Your task to perform on an android device: clear all cookies in the chrome app Image 0: 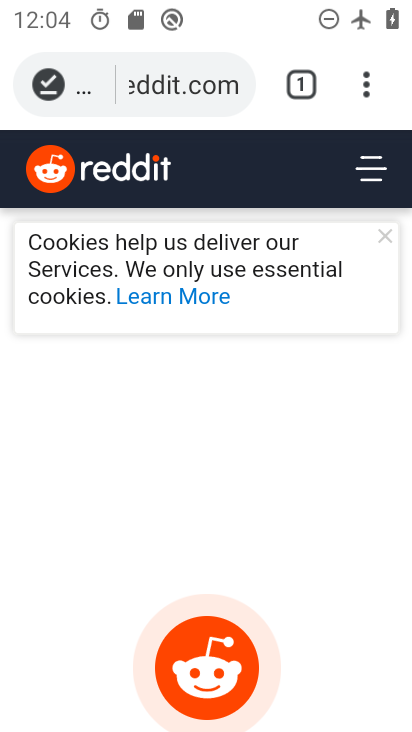
Step 0: drag from (204, 596) to (201, 308)
Your task to perform on an android device: clear all cookies in the chrome app Image 1: 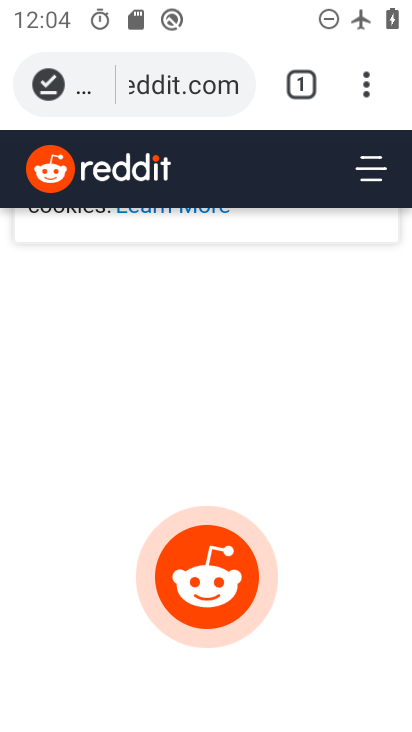
Step 1: press home button
Your task to perform on an android device: clear all cookies in the chrome app Image 2: 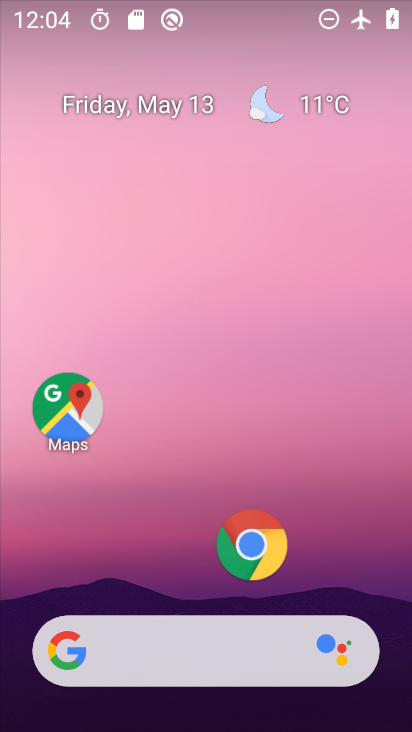
Step 2: click (245, 539)
Your task to perform on an android device: clear all cookies in the chrome app Image 3: 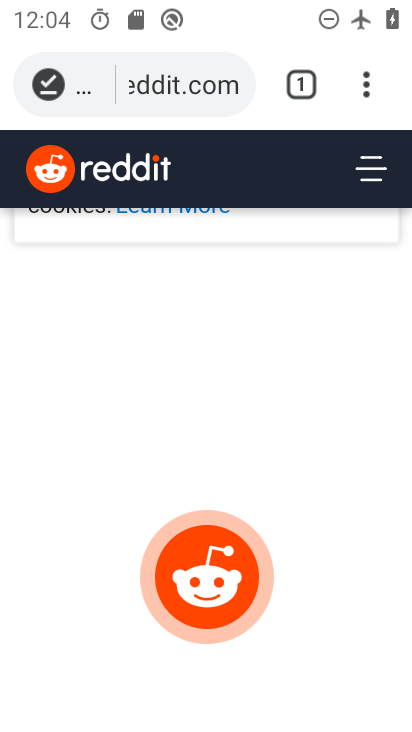
Step 3: click (368, 83)
Your task to perform on an android device: clear all cookies in the chrome app Image 4: 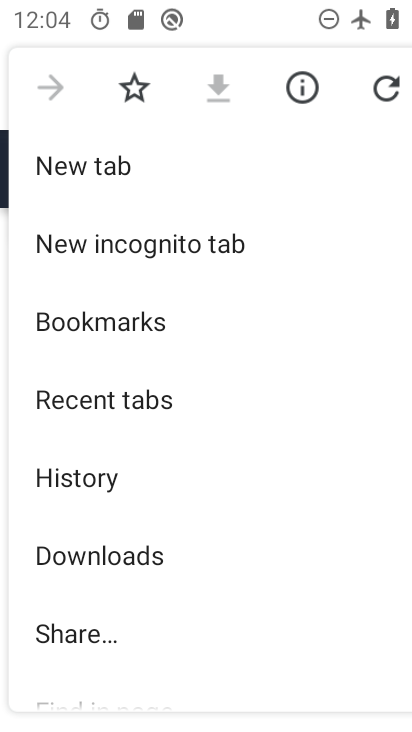
Step 4: click (132, 472)
Your task to perform on an android device: clear all cookies in the chrome app Image 5: 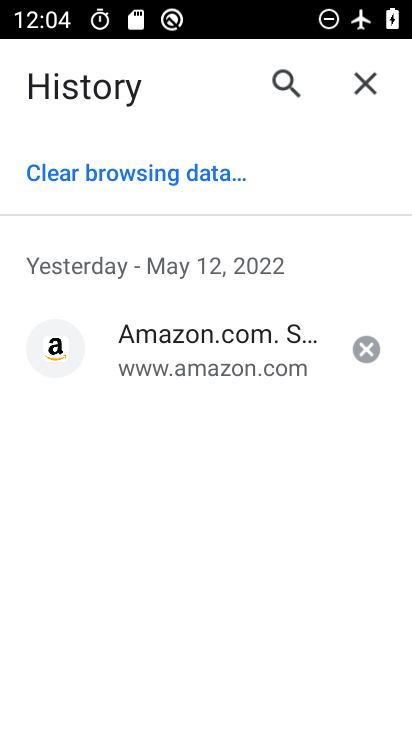
Step 5: click (175, 180)
Your task to perform on an android device: clear all cookies in the chrome app Image 6: 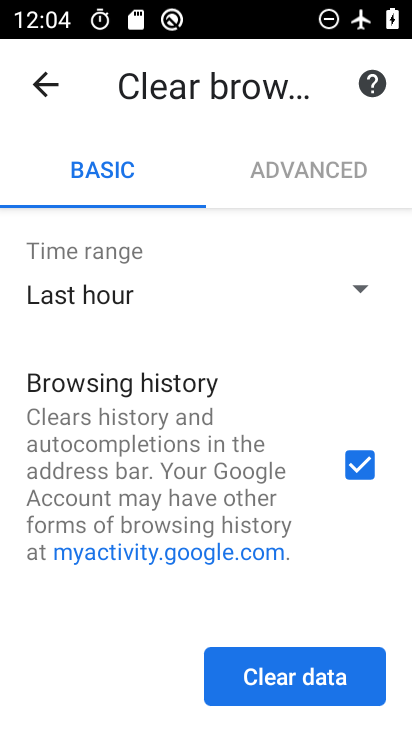
Step 6: click (354, 454)
Your task to perform on an android device: clear all cookies in the chrome app Image 7: 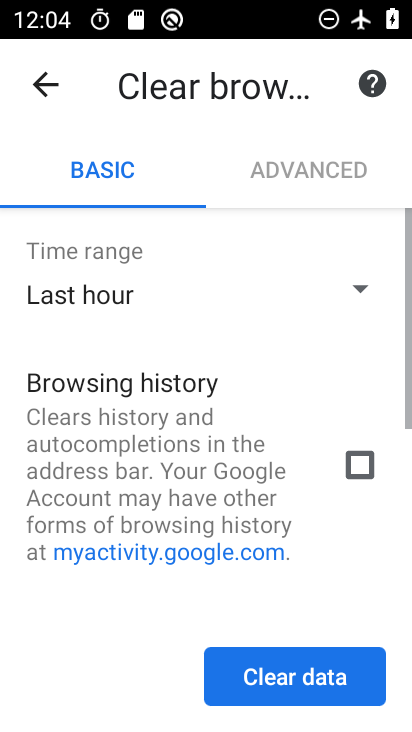
Step 7: drag from (210, 505) to (208, 155)
Your task to perform on an android device: clear all cookies in the chrome app Image 8: 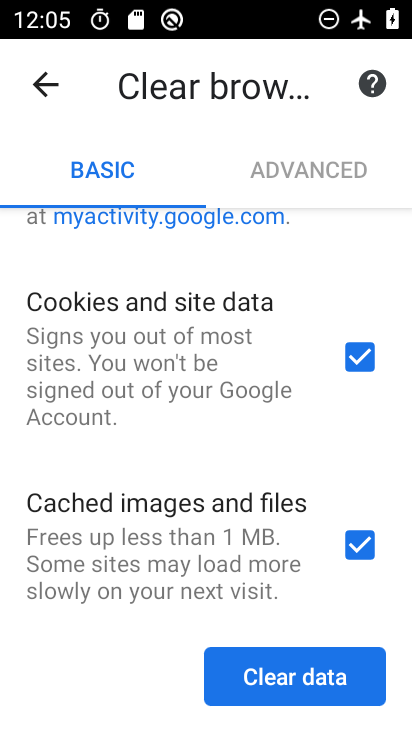
Step 8: click (355, 555)
Your task to perform on an android device: clear all cookies in the chrome app Image 9: 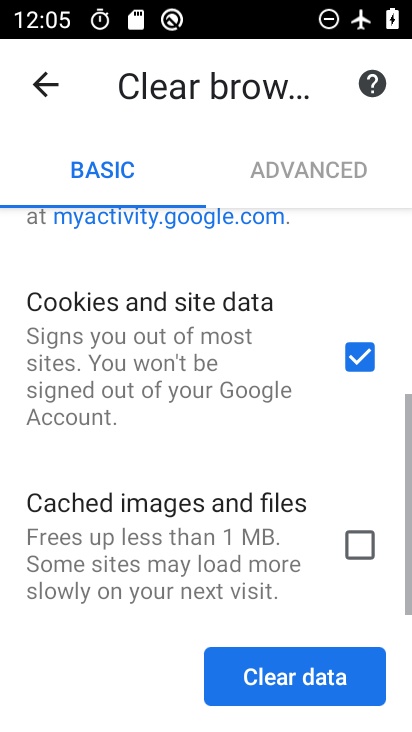
Step 9: drag from (191, 261) to (192, 657)
Your task to perform on an android device: clear all cookies in the chrome app Image 10: 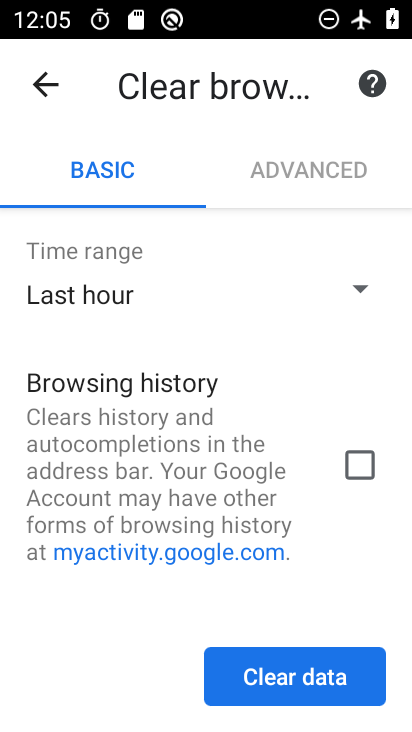
Step 10: click (366, 283)
Your task to perform on an android device: clear all cookies in the chrome app Image 11: 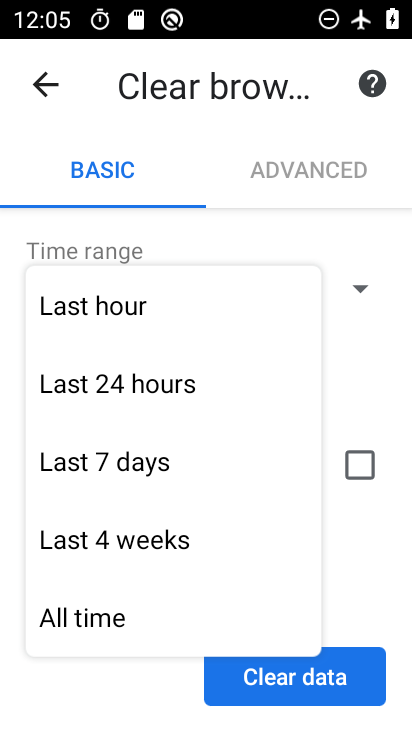
Step 11: click (145, 606)
Your task to perform on an android device: clear all cookies in the chrome app Image 12: 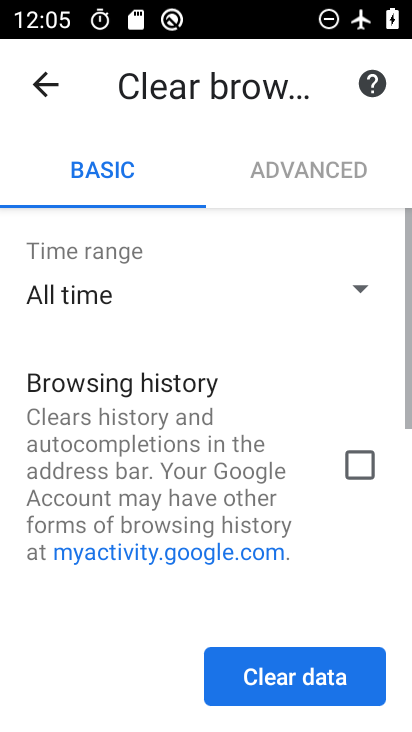
Step 12: click (298, 667)
Your task to perform on an android device: clear all cookies in the chrome app Image 13: 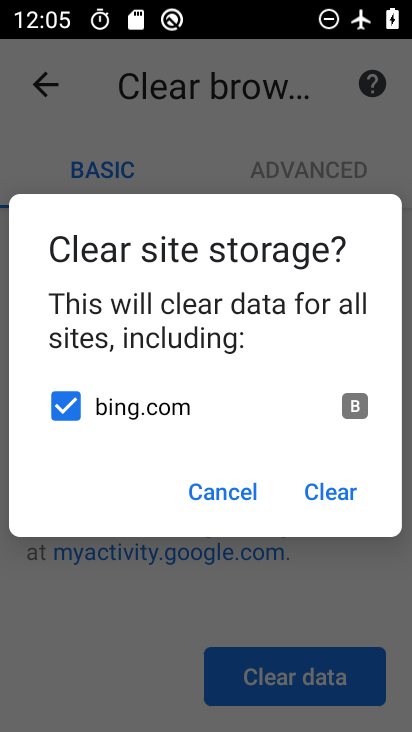
Step 13: click (351, 488)
Your task to perform on an android device: clear all cookies in the chrome app Image 14: 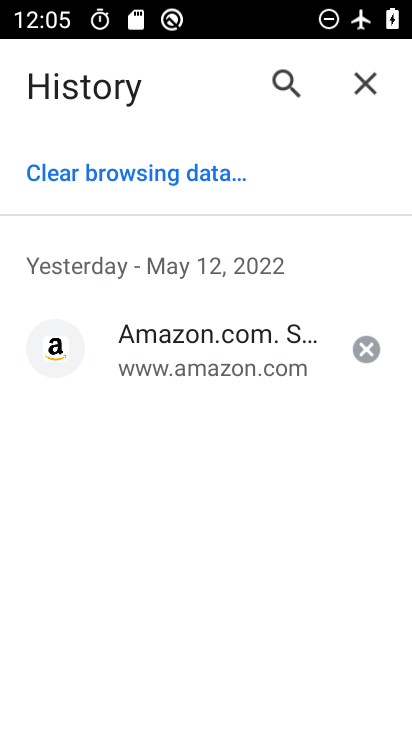
Step 14: task complete